Your task to perform on an android device: change alarm snooze length Image 0: 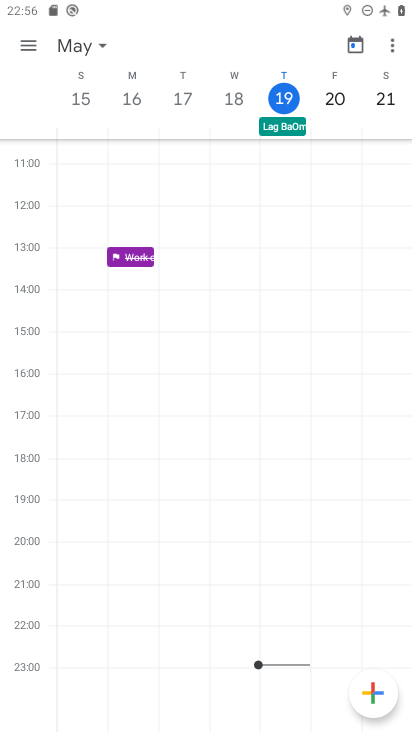
Step 0: press home button
Your task to perform on an android device: change alarm snooze length Image 1: 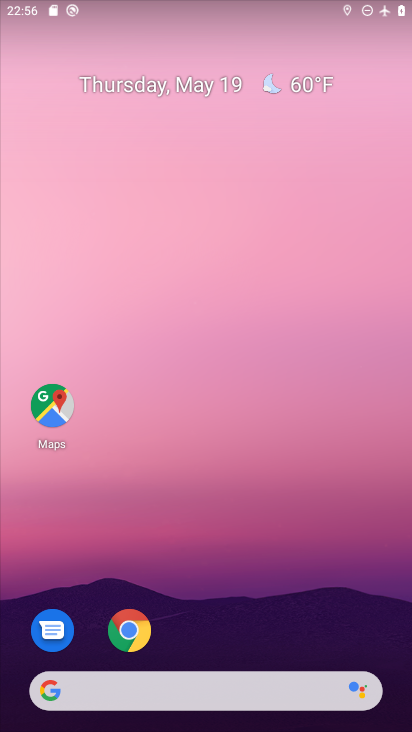
Step 1: drag from (267, 508) to (195, 104)
Your task to perform on an android device: change alarm snooze length Image 2: 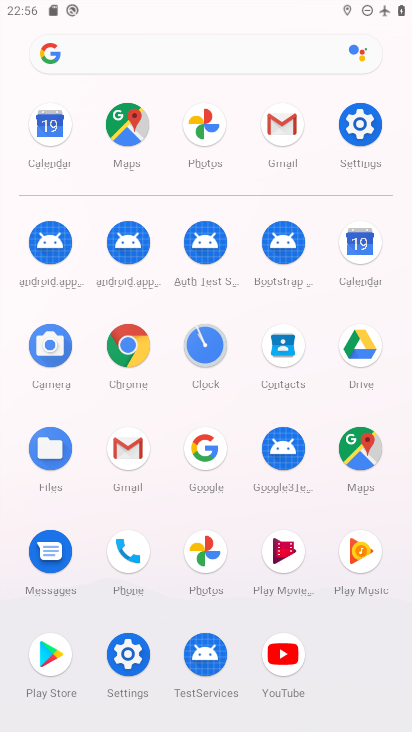
Step 2: click (197, 338)
Your task to perform on an android device: change alarm snooze length Image 3: 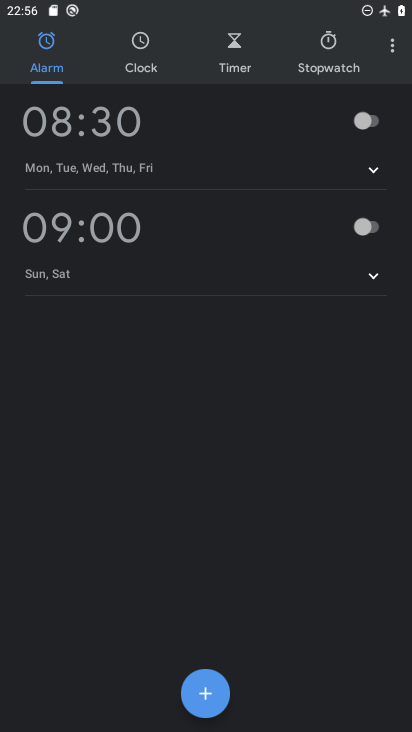
Step 3: click (392, 50)
Your task to perform on an android device: change alarm snooze length Image 4: 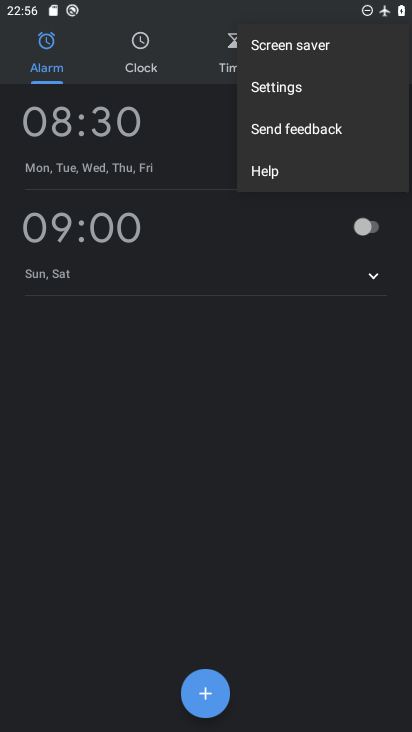
Step 4: click (272, 86)
Your task to perform on an android device: change alarm snooze length Image 5: 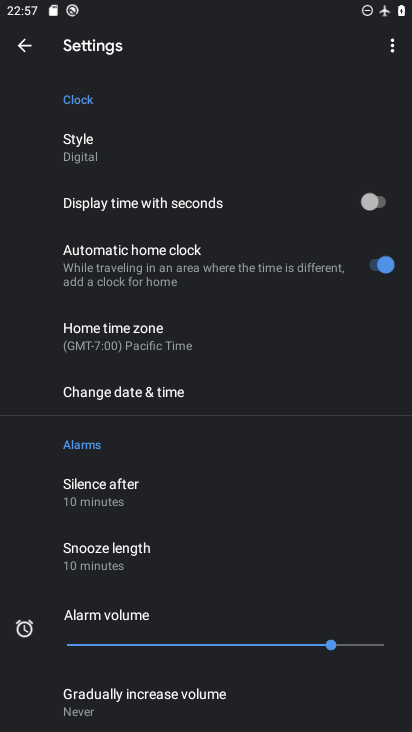
Step 5: click (120, 553)
Your task to perform on an android device: change alarm snooze length Image 6: 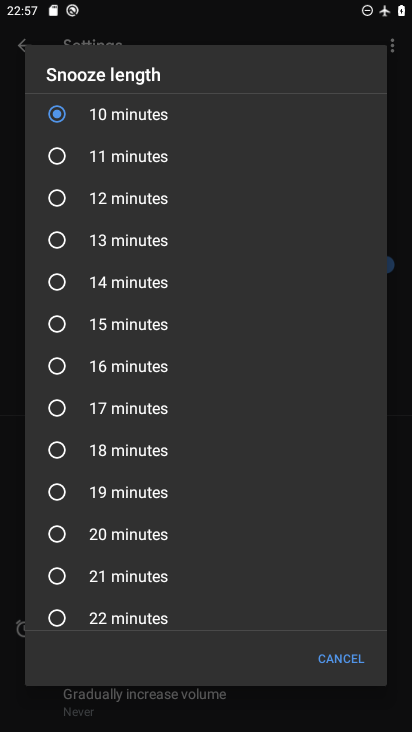
Step 6: click (56, 153)
Your task to perform on an android device: change alarm snooze length Image 7: 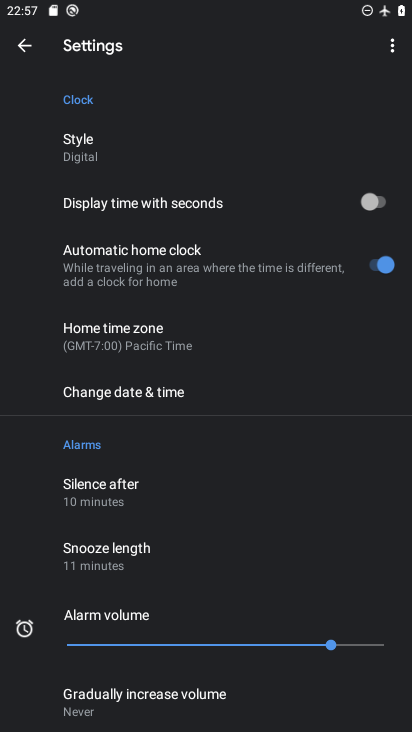
Step 7: task complete